Your task to perform on an android device: Search for seafood restaurants on Google Maps Image 0: 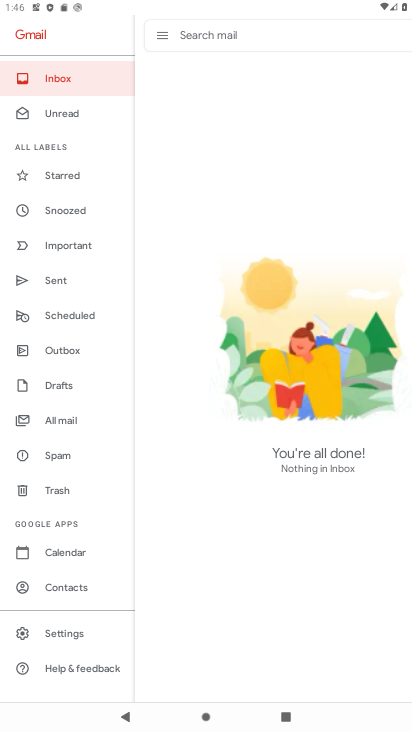
Step 0: press home button
Your task to perform on an android device: Search for seafood restaurants on Google Maps Image 1: 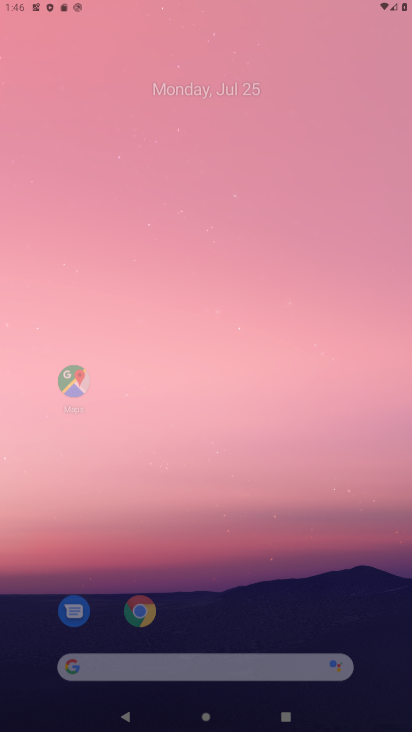
Step 1: drag from (40, 615) to (209, 121)
Your task to perform on an android device: Search for seafood restaurants on Google Maps Image 2: 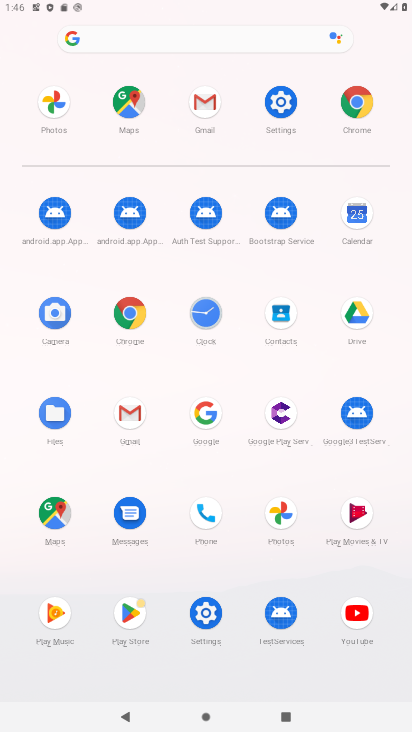
Step 2: click (50, 511)
Your task to perform on an android device: Search for seafood restaurants on Google Maps Image 3: 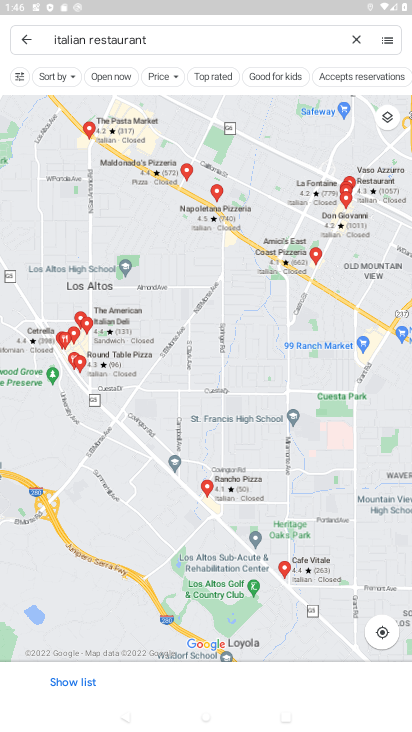
Step 3: click (350, 41)
Your task to perform on an android device: Search for seafood restaurants on Google Maps Image 4: 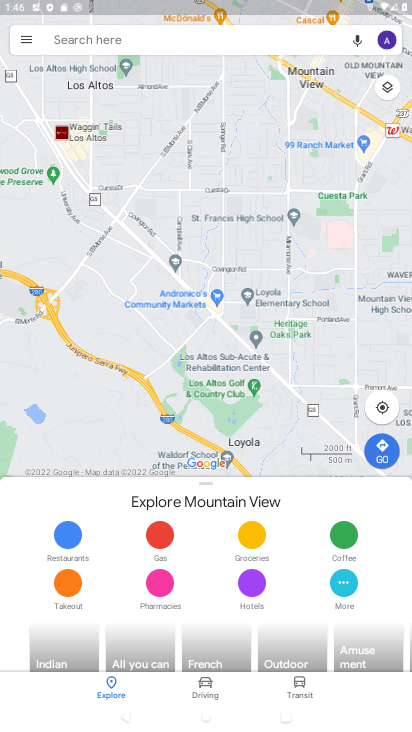
Step 4: click (16, 36)
Your task to perform on an android device: Search for seafood restaurants on Google Maps Image 5: 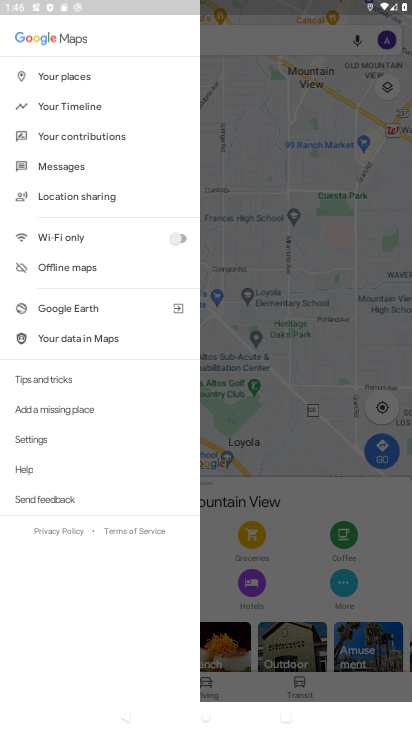
Step 5: click (227, 36)
Your task to perform on an android device: Search for seafood restaurants on Google Maps Image 6: 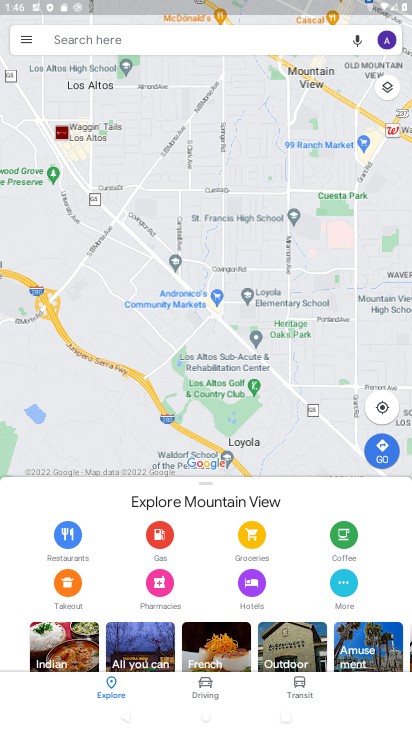
Step 6: click (243, 41)
Your task to perform on an android device: Search for seafood restaurants on Google Maps Image 7: 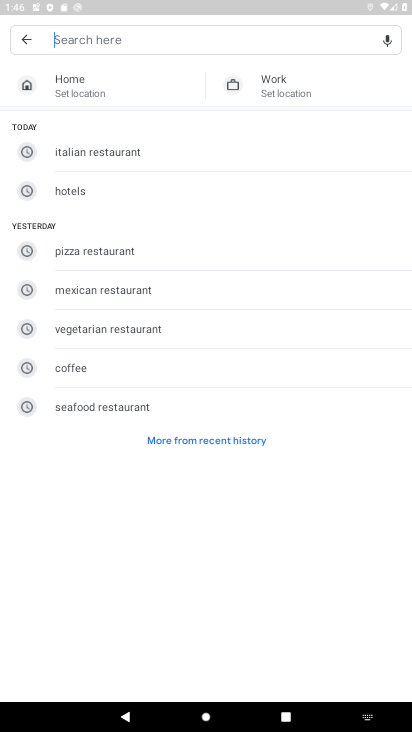
Step 7: click (107, 403)
Your task to perform on an android device: Search for seafood restaurants on Google Maps Image 8: 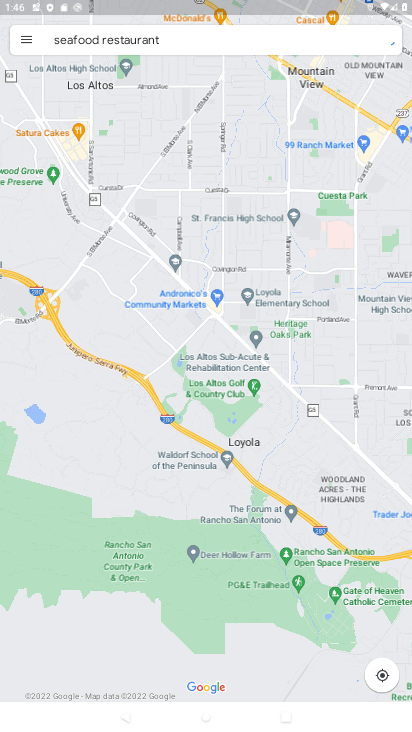
Step 8: task complete